Your task to perform on an android device: Open Yahoo.com Image 0: 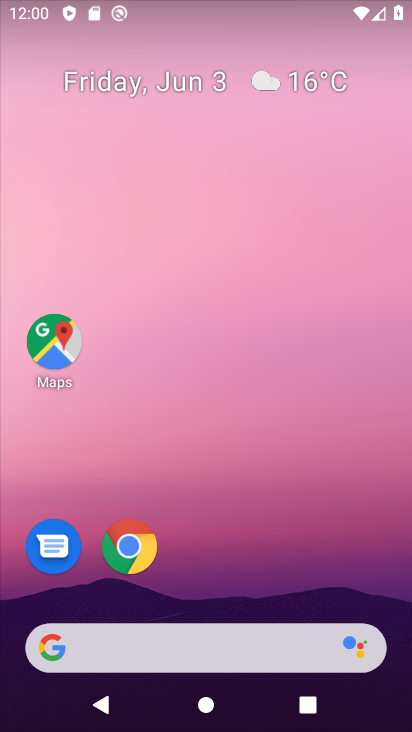
Step 0: click (127, 556)
Your task to perform on an android device: Open Yahoo.com Image 1: 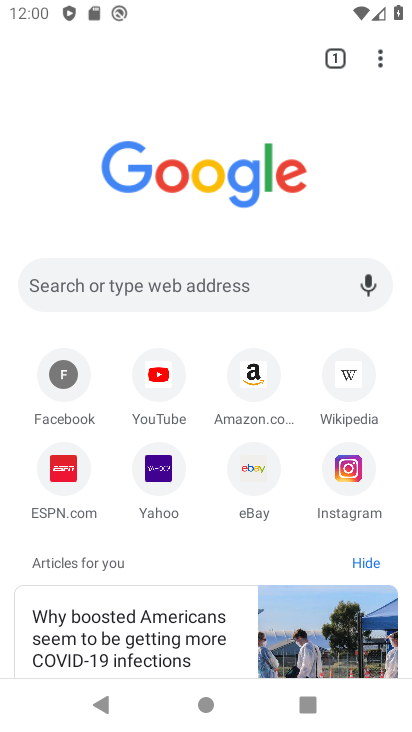
Step 1: click (161, 486)
Your task to perform on an android device: Open Yahoo.com Image 2: 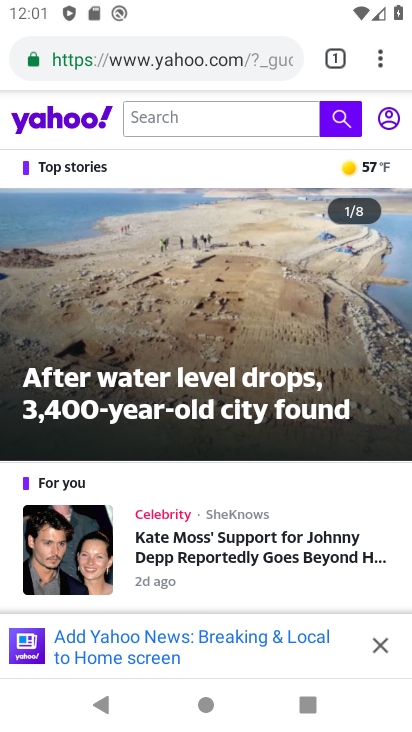
Step 2: task complete